Your task to perform on an android device: turn notification dots on Image 0: 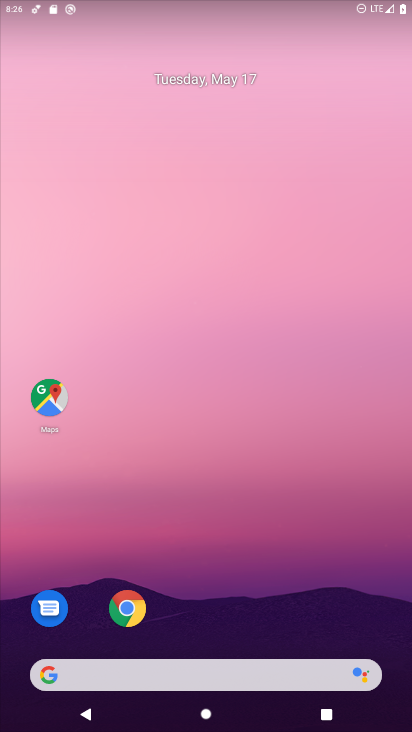
Step 0: drag from (199, 523) to (270, 121)
Your task to perform on an android device: turn notification dots on Image 1: 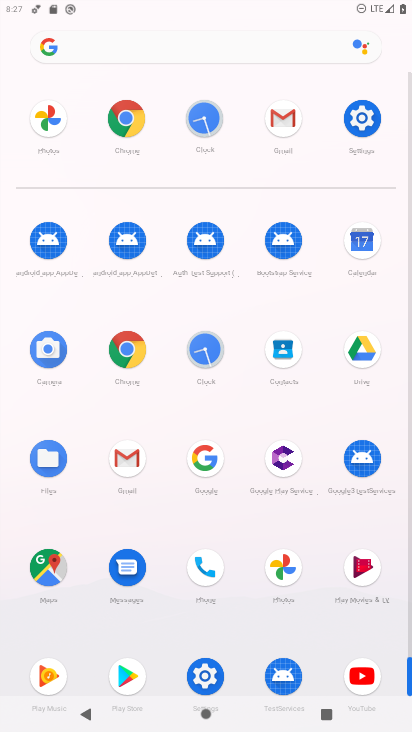
Step 1: click (209, 677)
Your task to perform on an android device: turn notification dots on Image 2: 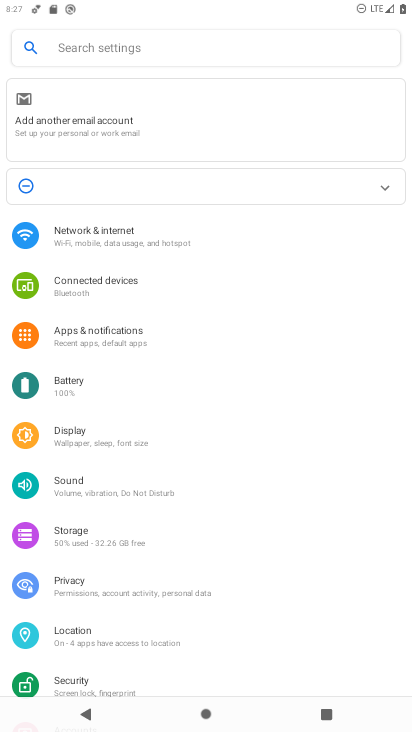
Step 2: click (120, 337)
Your task to perform on an android device: turn notification dots on Image 3: 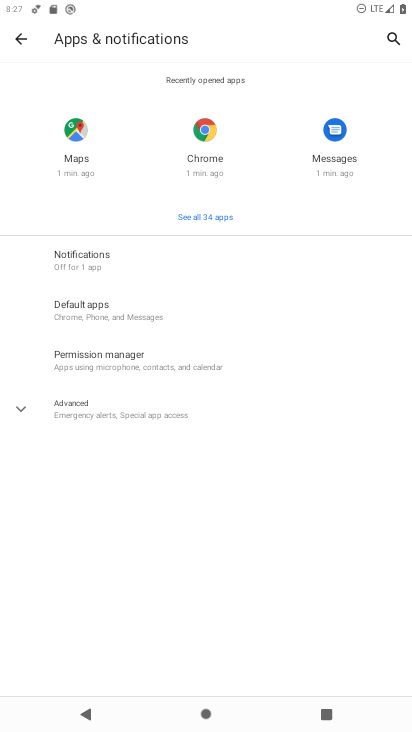
Step 3: click (92, 265)
Your task to perform on an android device: turn notification dots on Image 4: 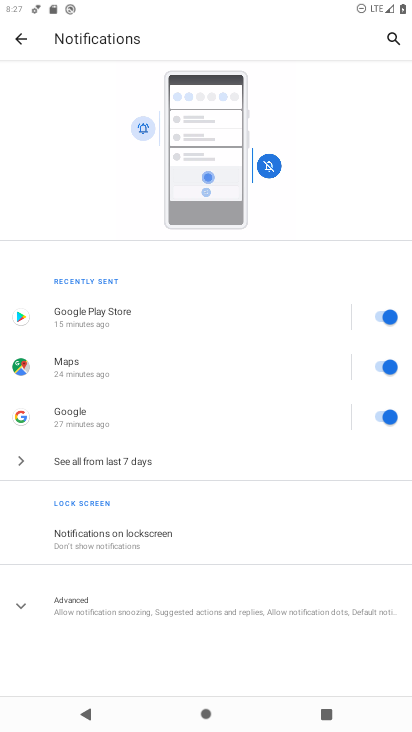
Step 4: click (144, 609)
Your task to perform on an android device: turn notification dots on Image 5: 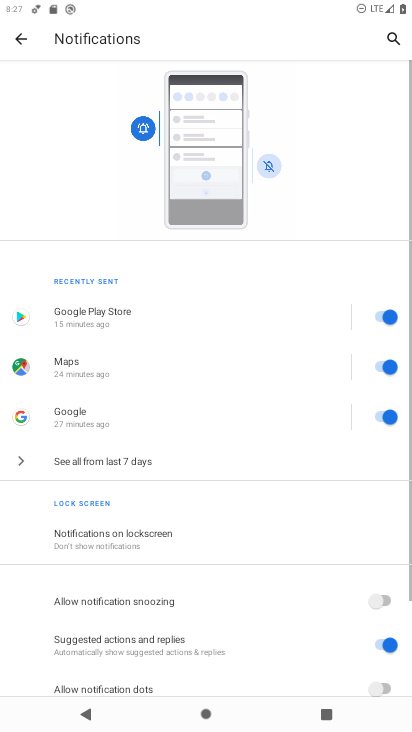
Step 5: drag from (145, 628) to (167, 484)
Your task to perform on an android device: turn notification dots on Image 6: 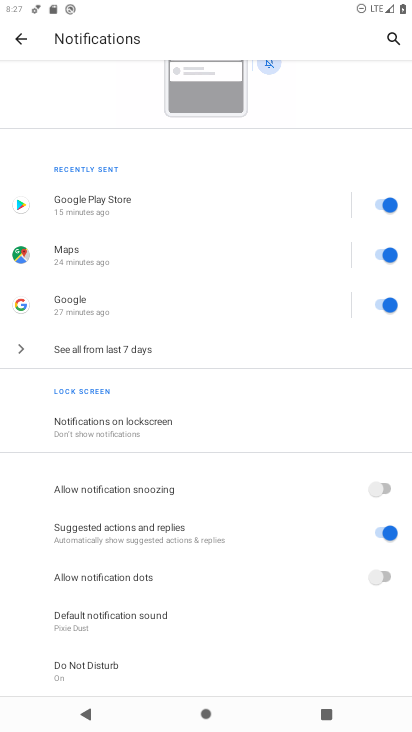
Step 6: click (387, 576)
Your task to perform on an android device: turn notification dots on Image 7: 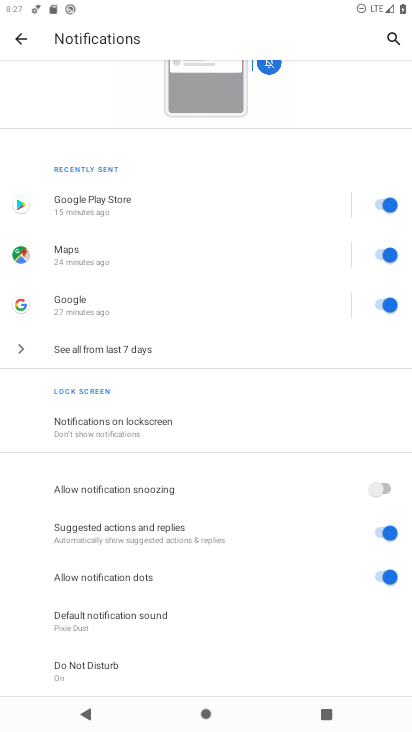
Step 7: task complete